Your task to perform on an android device: open the mobile data screen to see how much data has been used Image 0: 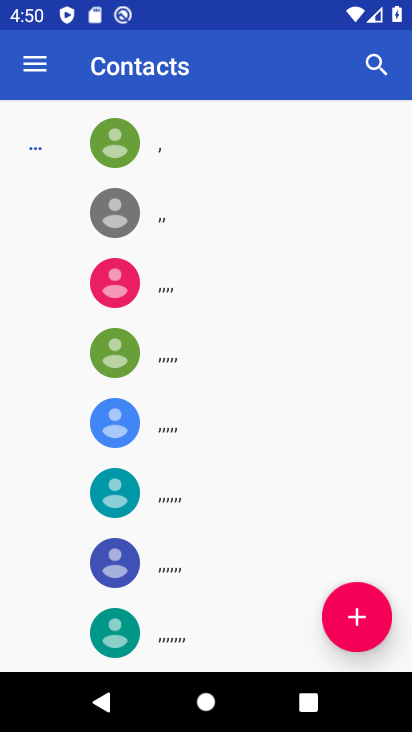
Step 0: press back button
Your task to perform on an android device: open the mobile data screen to see how much data has been used Image 1: 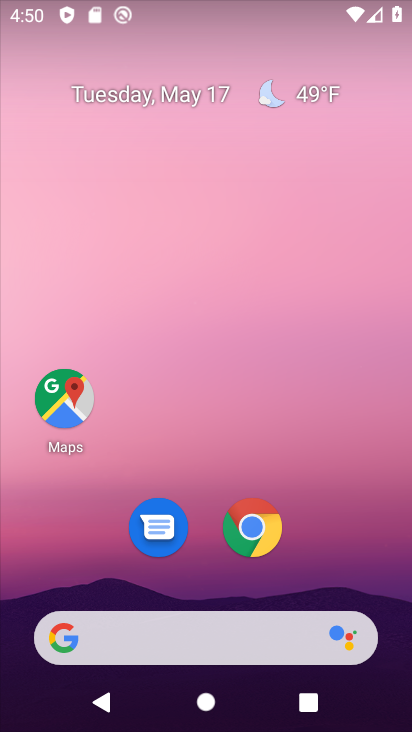
Step 1: drag from (355, 483) to (145, 8)
Your task to perform on an android device: open the mobile data screen to see how much data has been used Image 2: 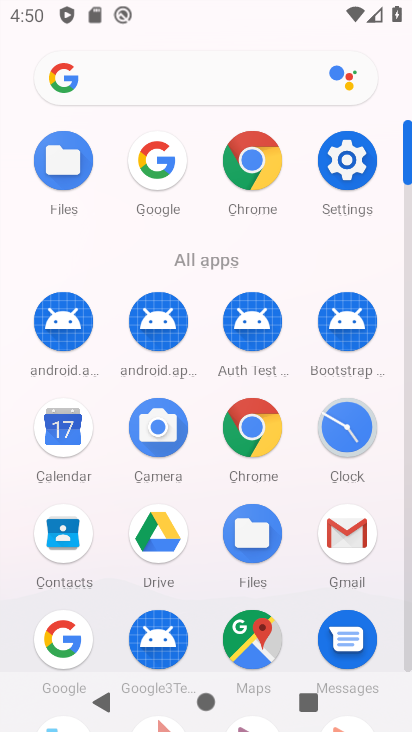
Step 2: drag from (26, 541) to (17, 216)
Your task to perform on an android device: open the mobile data screen to see how much data has been used Image 3: 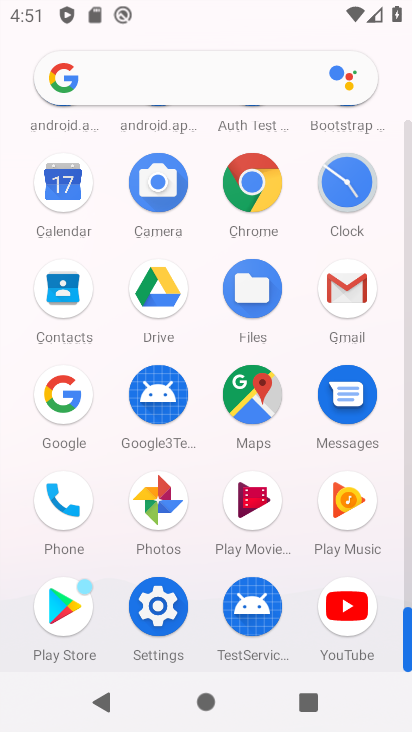
Step 3: click (158, 607)
Your task to perform on an android device: open the mobile data screen to see how much data has been used Image 4: 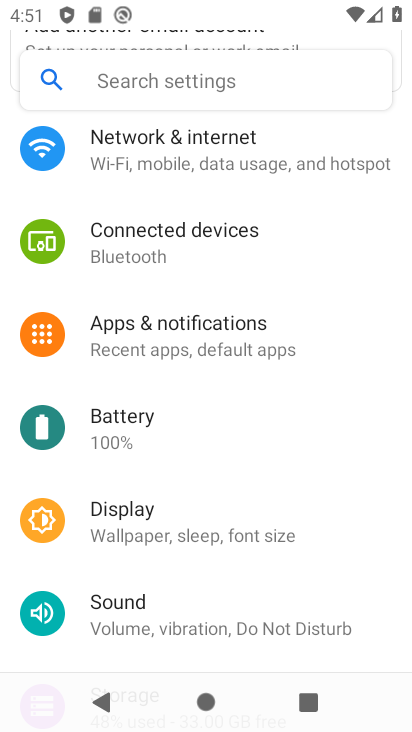
Step 4: click (259, 153)
Your task to perform on an android device: open the mobile data screen to see how much data has been used Image 5: 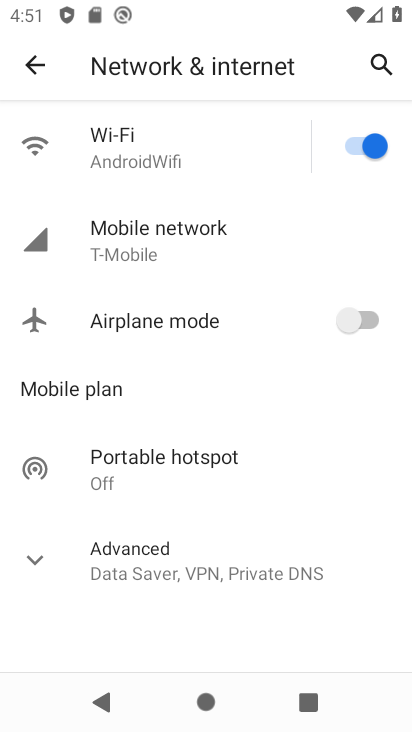
Step 5: click (207, 197)
Your task to perform on an android device: open the mobile data screen to see how much data has been used Image 6: 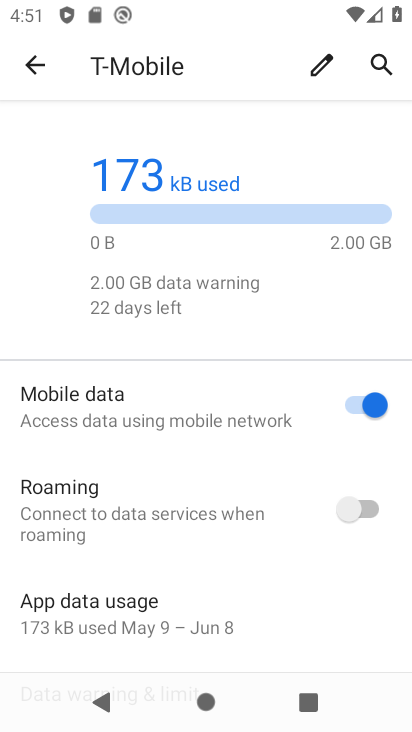
Step 6: task complete